Your task to perform on an android device: Open Google Maps and go to "Timeline" Image 0: 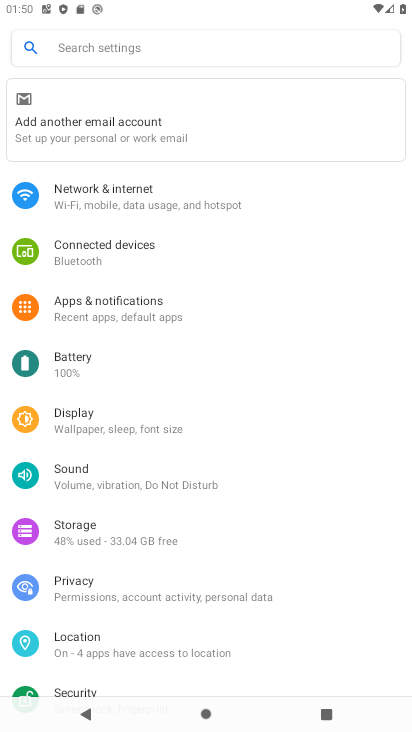
Step 0: press home button
Your task to perform on an android device: Open Google Maps and go to "Timeline" Image 1: 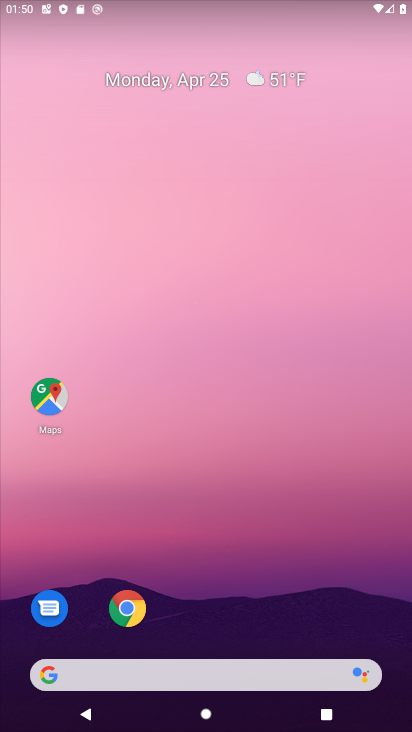
Step 1: click (55, 400)
Your task to perform on an android device: Open Google Maps and go to "Timeline" Image 2: 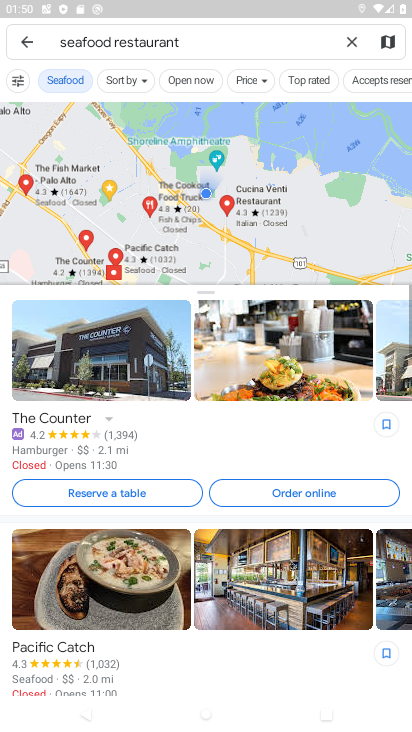
Step 2: click (26, 47)
Your task to perform on an android device: Open Google Maps and go to "Timeline" Image 3: 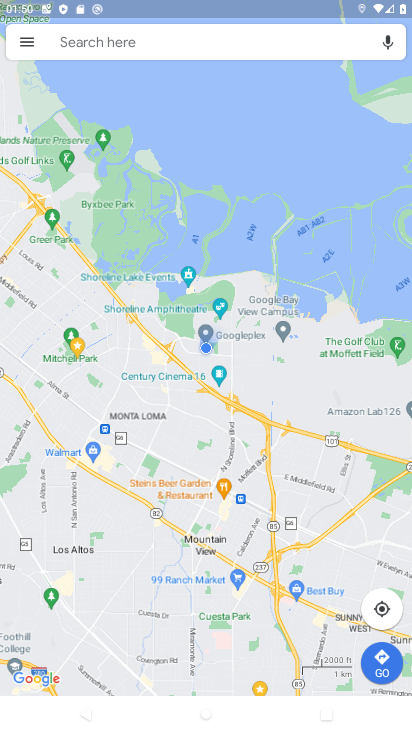
Step 3: click (26, 47)
Your task to perform on an android device: Open Google Maps and go to "Timeline" Image 4: 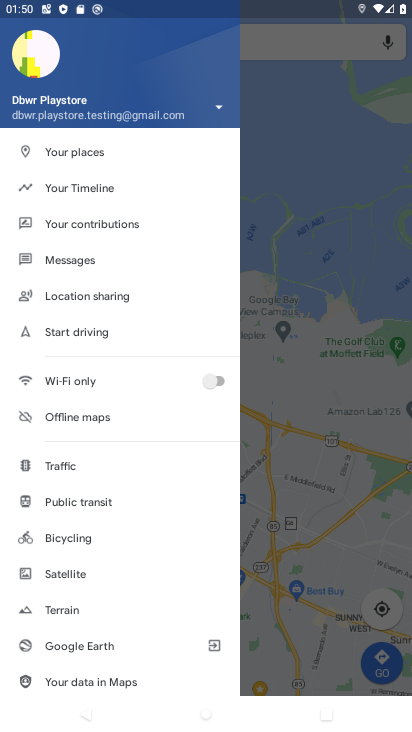
Step 4: click (102, 186)
Your task to perform on an android device: Open Google Maps and go to "Timeline" Image 5: 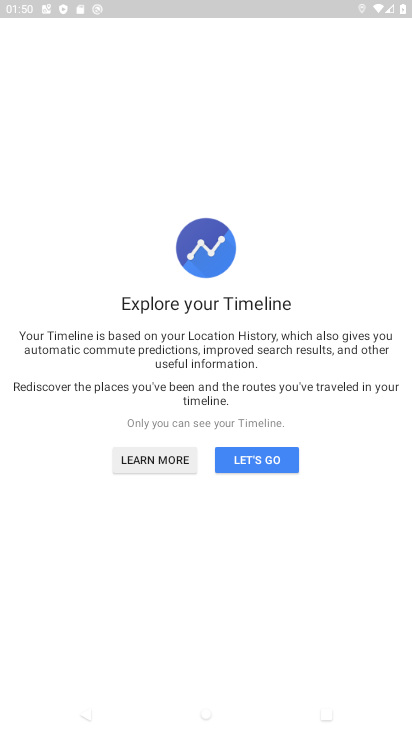
Step 5: click (269, 463)
Your task to perform on an android device: Open Google Maps and go to "Timeline" Image 6: 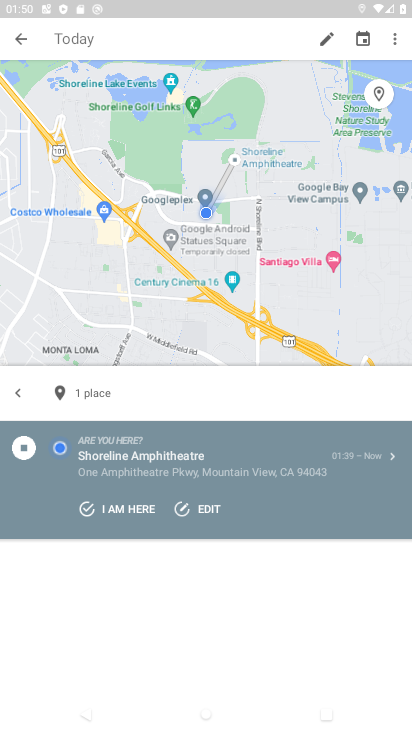
Step 6: task complete